Your task to perform on an android device: See recent photos Image 0: 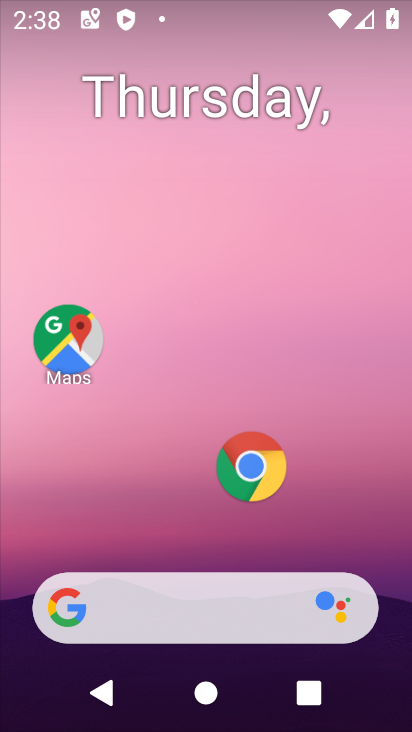
Step 0: drag from (193, 528) to (208, 154)
Your task to perform on an android device: See recent photos Image 1: 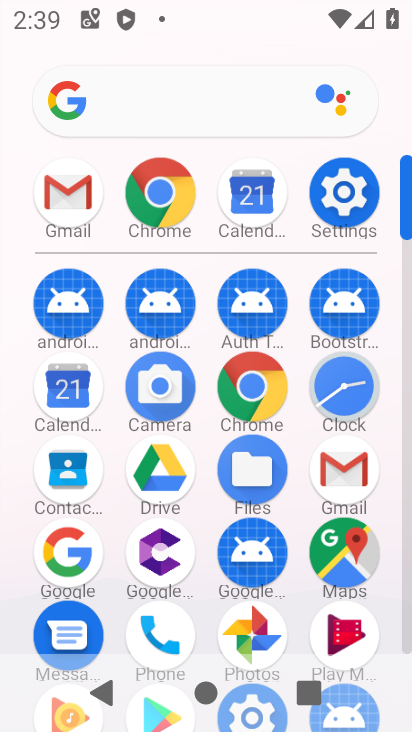
Step 1: click (242, 617)
Your task to perform on an android device: See recent photos Image 2: 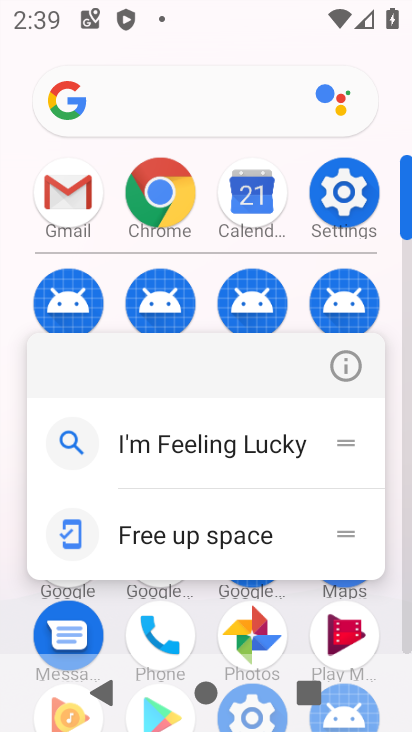
Step 2: click (250, 619)
Your task to perform on an android device: See recent photos Image 3: 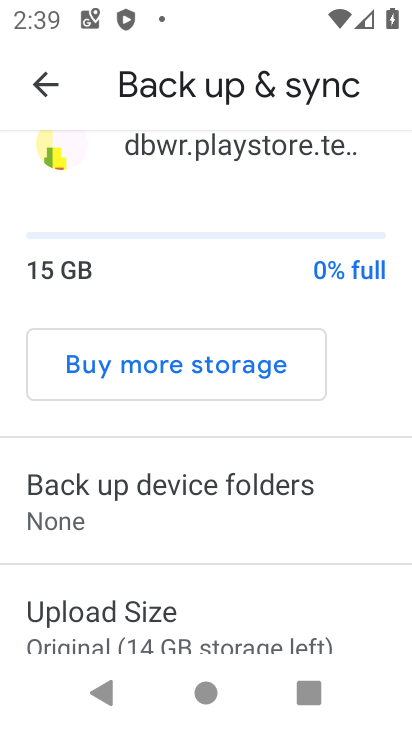
Step 3: click (39, 90)
Your task to perform on an android device: See recent photos Image 4: 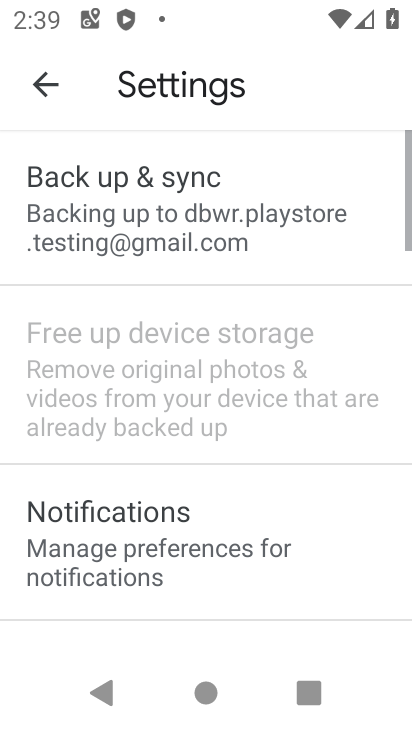
Step 4: click (39, 90)
Your task to perform on an android device: See recent photos Image 5: 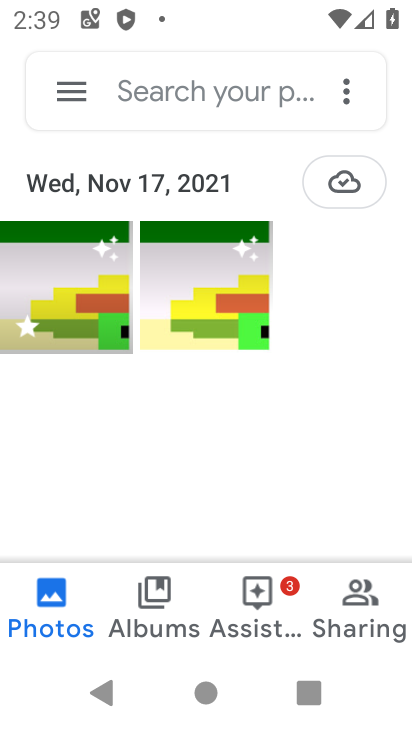
Step 5: click (73, 302)
Your task to perform on an android device: See recent photos Image 6: 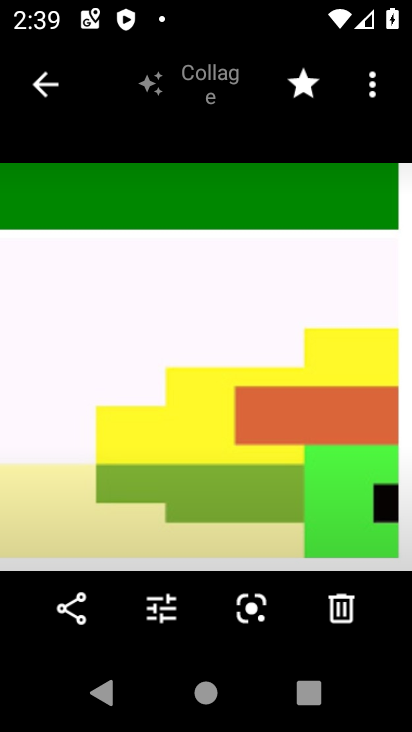
Step 6: task complete